Your task to perform on an android device: set default search engine in the chrome app Image 0: 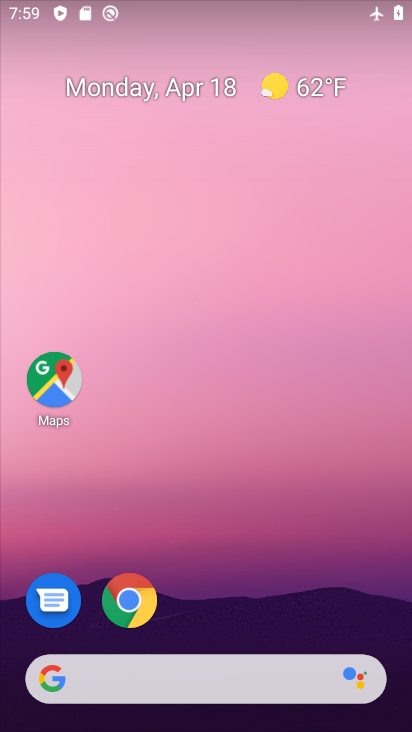
Step 0: click (102, 613)
Your task to perform on an android device: set default search engine in the chrome app Image 1: 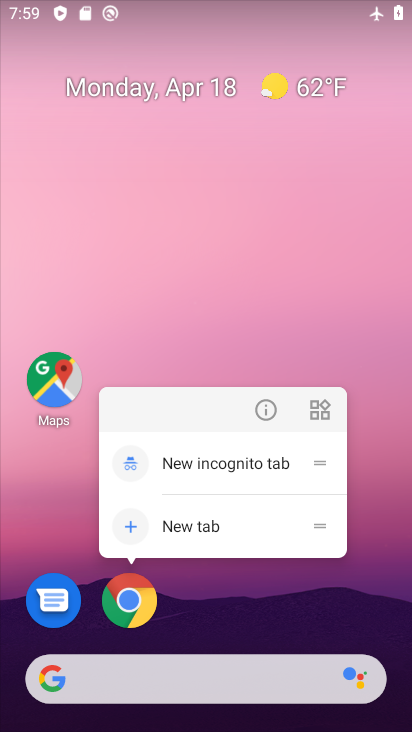
Step 1: click (120, 607)
Your task to perform on an android device: set default search engine in the chrome app Image 2: 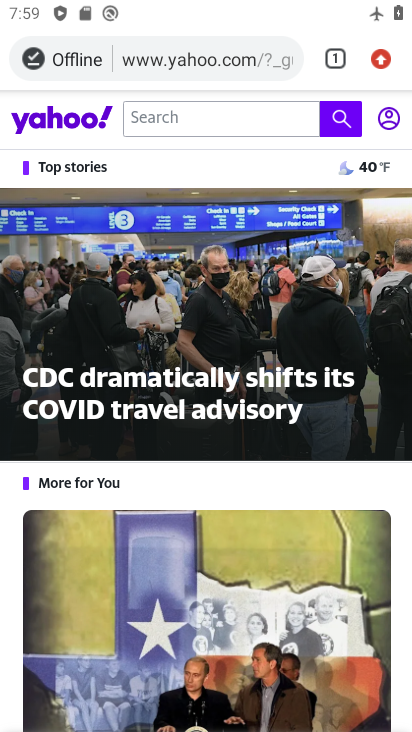
Step 2: click (379, 61)
Your task to perform on an android device: set default search engine in the chrome app Image 3: 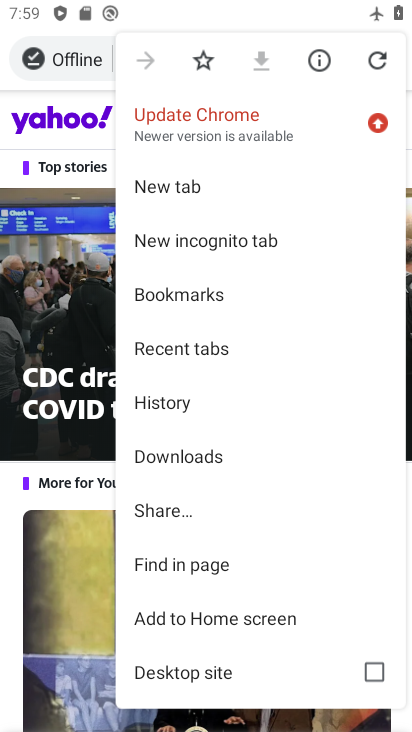
Step 3: drag from (220, 612) to (224, 220)
Your task to perform on an android device: set default search engine in the chrome app Image 4: 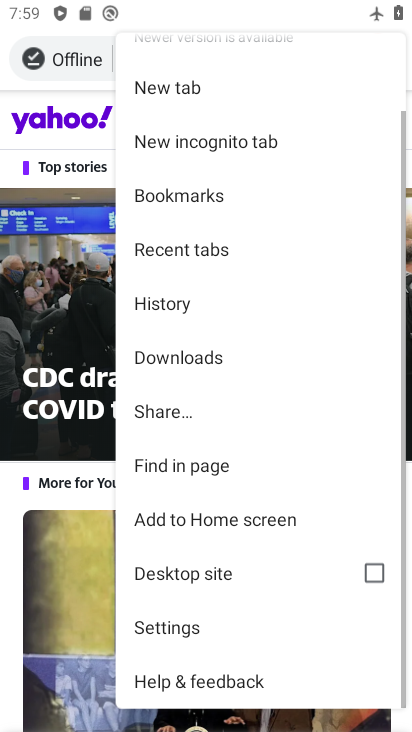
Step 4: click (177, 636)
Your task to perform on an android device: set default search engine in the chrome app Image 5: 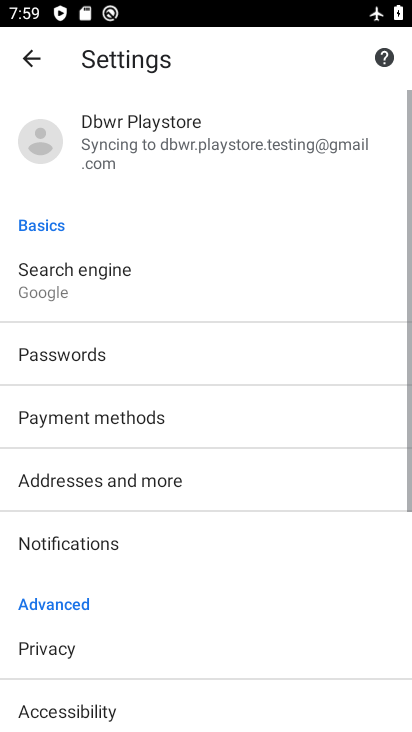
Step 5: click (108, 278)
Your task to perform on an android device: set default search engine in the chrome app Image 6: 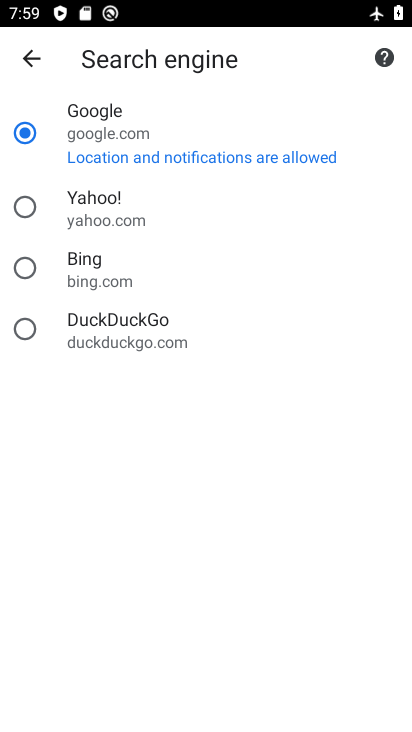
Step 6: click (24, 134)
Your task to perform on an android device: set default search engine in the chrome app Image 7: 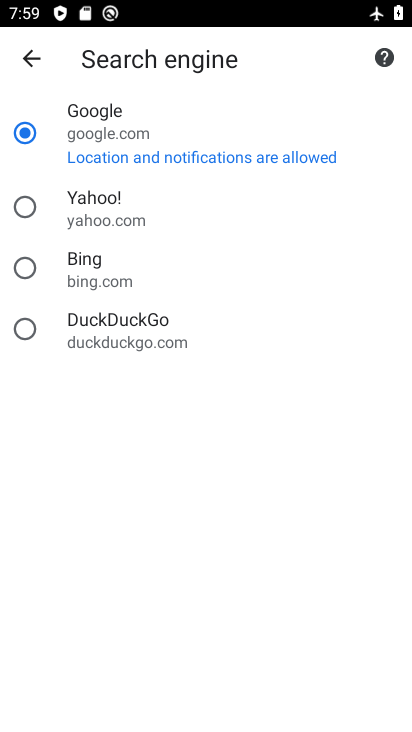
Step 7: task complete